Your task to perform on an android device: Add "logitech g903" to the cart on bestbuy.com, then select checkout. Image 0: 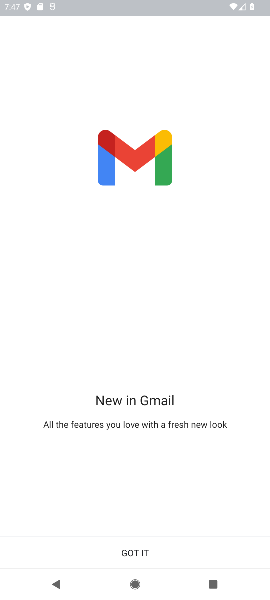
Step 0: press home button
Your task to perform on an android device: Add "logitech g903" to the cart on bestbuy.com, then select checkout. Image 1: 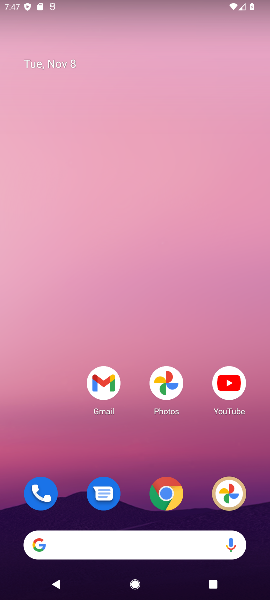
Step 1: click (163, 502)
Your task to perform on an android device: Add "logitech g903" to the cart on bestbuy.com, then select checkout. Image 2: 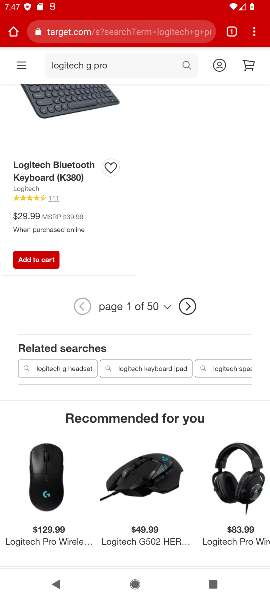
Step 2: click (107, 34)
Your task to perform on an android device: Add "logitech g903" to the cart on bestbuy.com, then select checkout. Image 3: 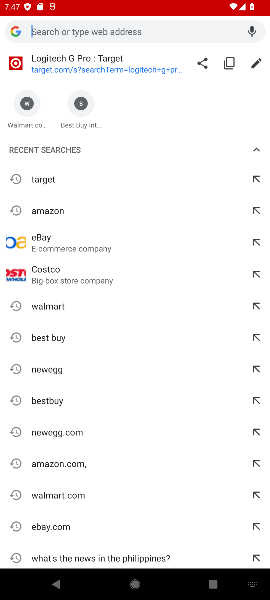
Step 3: type "bestbuy.com"
Your task to perform on an android device: Add "logitech g903" to the cart on bestbuy.com, then select checkout. Image 4: 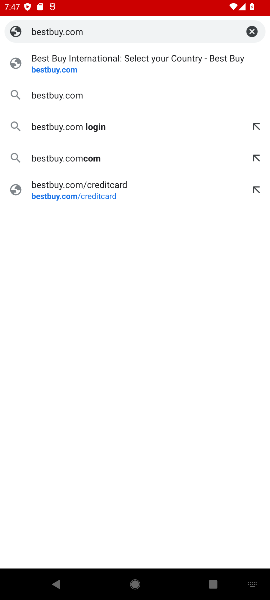
Step 4: click (57, 74)
Your task to perform on an android device: Add "logitech g903" to the cart on bestbuy.com, then select checkout. Image 5: 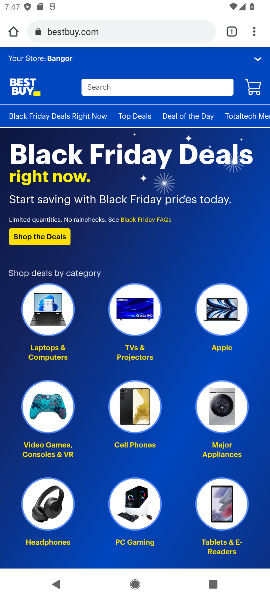
Step 5: click (128, 90)
Your task to perform on an android device: Add "logitech g903" to the cart on bestbuy.com, then select checkout. Image 6: 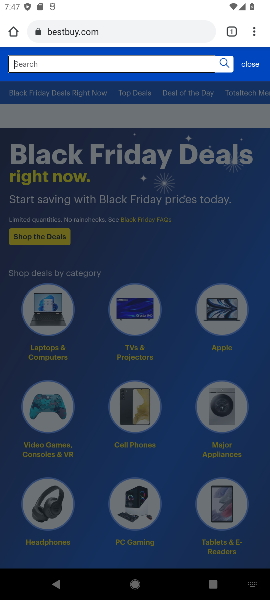
Step 6: type "logitech g903"
Your task to perform on an android device: Add "logitech g903" to the cart on bestbuy.com, then select checkout. Image 7: 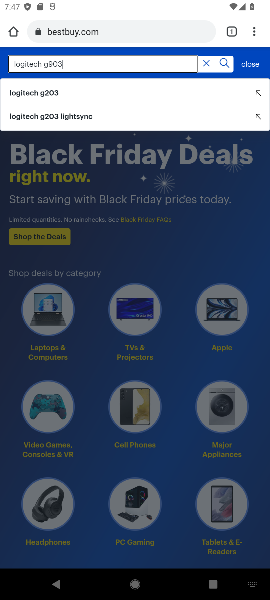
Step 7: click (224, 63)
Your task to perform on an android device: Add "logitech g903" to the cart on bestbuy.com, then select checkout. Image 8: 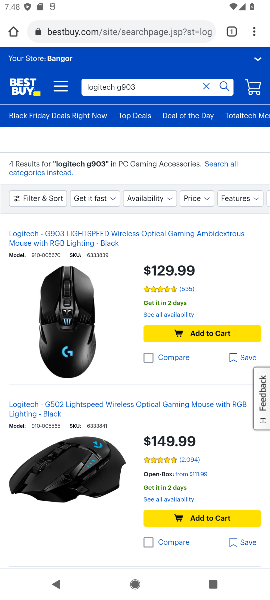
Step 8: click (71, 337)
Your task to perform on an android device: Add "logitech g903" to the cart on bestbuy.com, then select checkout. Image 9: 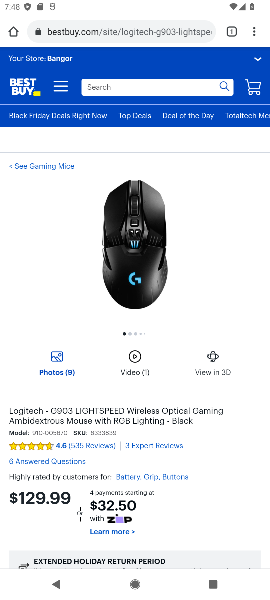
Step 9: drag from (68, 418) to (68, 324)
Your task to perform on an android device: Add "logitech g903" to the cart on bestbuy.com, then select checkout. Image 10: 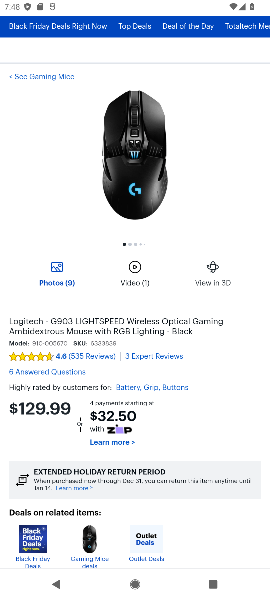
Step 10: drag from (172, 429) to (178, 247)
Your task to perform on an android device: Add "logitech g903" to the cart on bestbuy.com, then select checkout. Image 11: 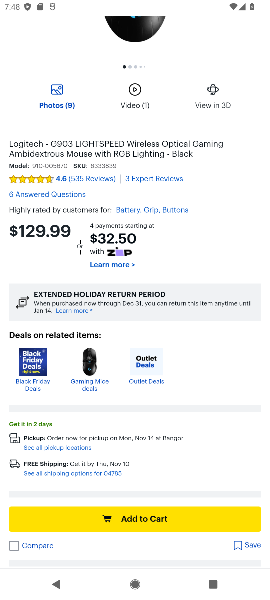
Step 11: click (137, 510)
Your task to perform on an android device: Add "logitech g903" to the cart on bestbuy.com, then select checkout. Image 12: 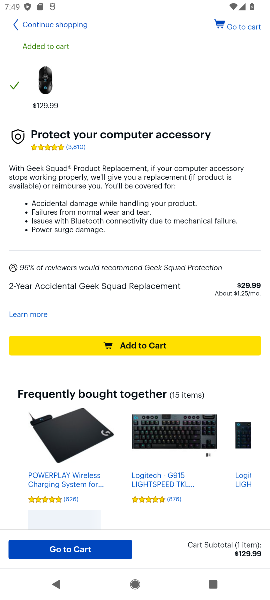
Step 12: click (246, 27)
Your task to perform on an android device: Add "logitech g903" to the cart on bestbuy.com, then select checkout. Image 13: 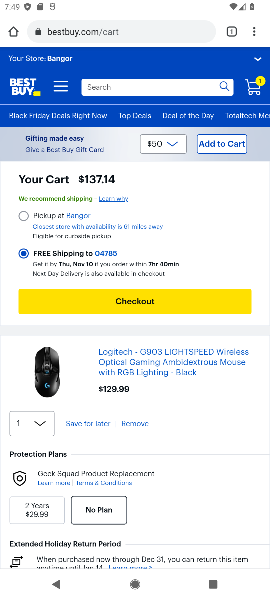
Step 13: click (150, 298)
Your task to perform on an android device: Add "logitech g903" to the cart on bestbuy.com, then select checkout. Image 14: 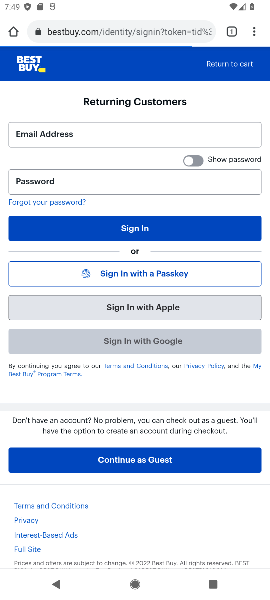
Step 14: task complete